Your task to perform on an android device: open app "Facebook" (install if not already installed) and enter user name: "resultants@gmail.com" and password: "earned" Image 0: 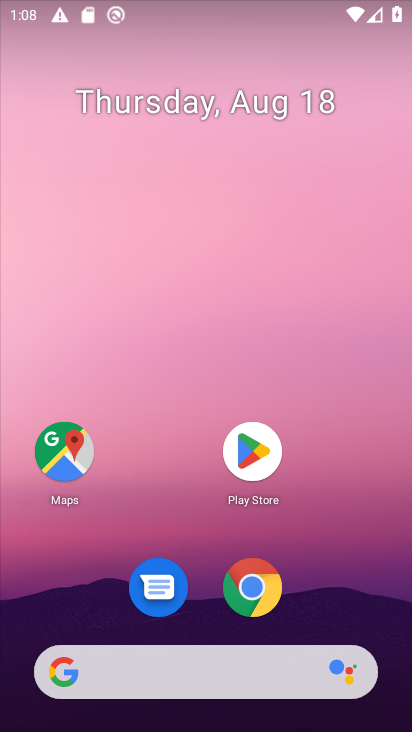
Step 0: click (257, 452)
Your task to perform on an android device: open app "Facebook" (install if not already installed) and enter user name: "resultants@gmail.com" and password: "earned" Image 1: 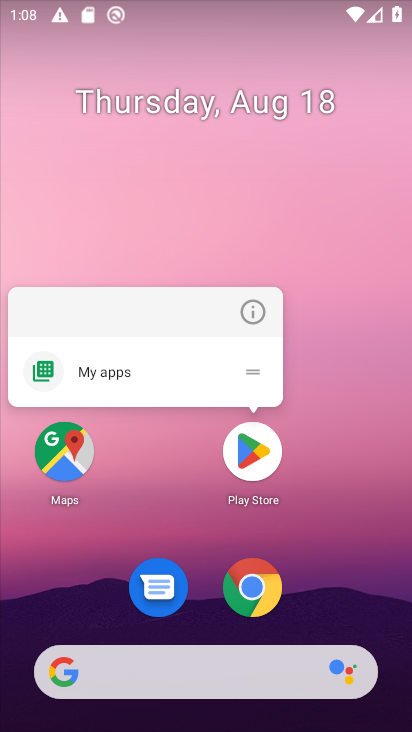
Step 1: click (257, 453)
Your task to perform on an android device: open app "Facebook" (install if not already installed) and enter user name: "resultants@gmail.com" and password: "earned" Image 2: 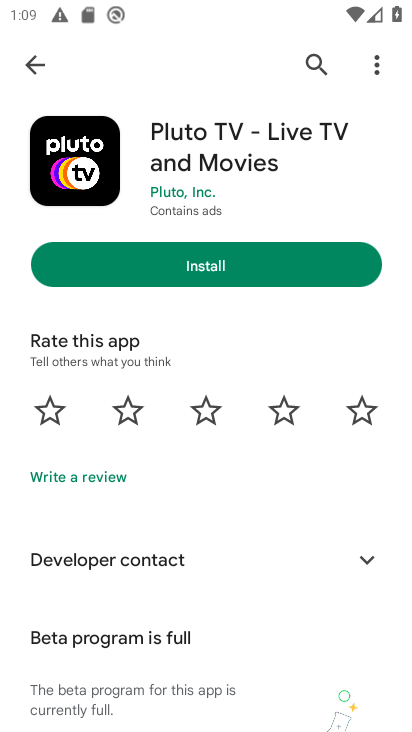
Step 2: click (309, 58)
Your task to perform on an android device: open app "Facebook" (install if not already installed) and enter user name: "resultants@gmail.com" and password: "earned" Image 3: 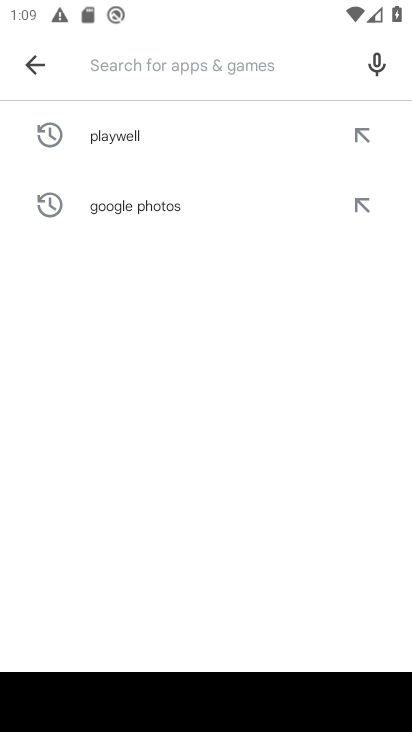
Step 3: type "Facebook"
Your task to perform on an android device: open app "Facebook" (install if not already installed) and enter user name: "resultants@gmail.com" and password: "earned" Image 4: 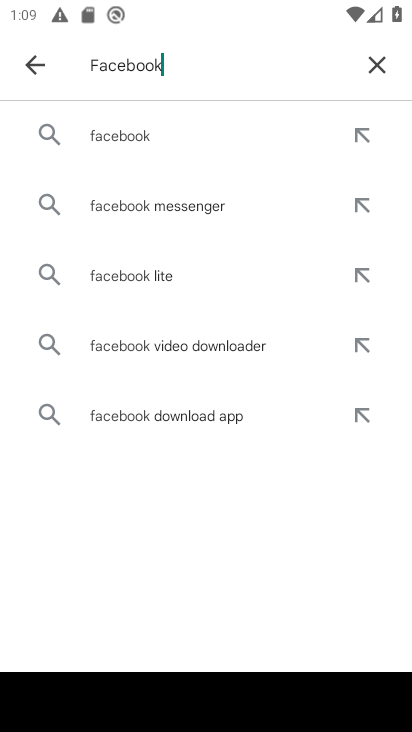
Step 4: click (104, 136)
Your task to perform on an android device: open app "Facebook" (install if not already installed) and enter user name: "resultants@gmail.com" and password: "earned" Image 5: 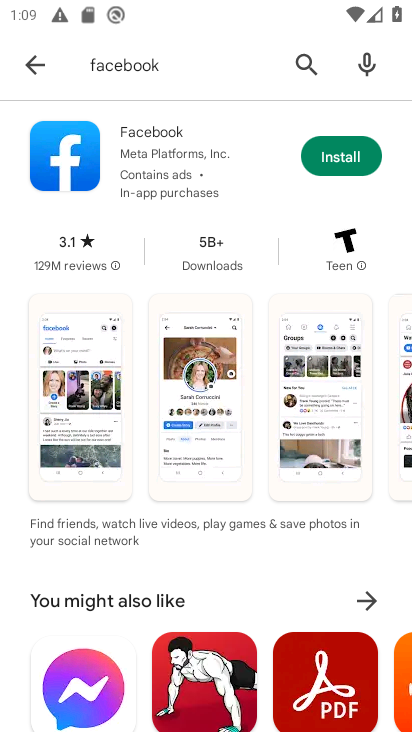
Step 5: click (334, 164)
Your task to perform on an android device: open app "Facebook" (install if not already installed) and enter user name: "resultants@gmail.com" and password: "earned" Image 6: 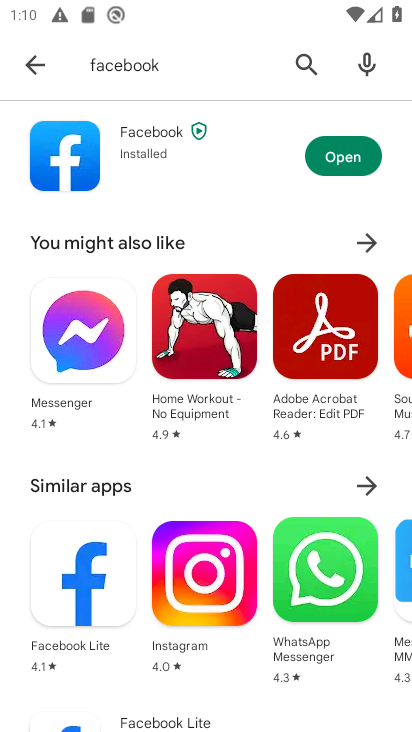
Step 6: click (334, 164)
Your task to perform on an android device: open app "Facebook" (install if not already installed) and enter user name: "resultants@gmail.com" and password: "earned" Image 7: 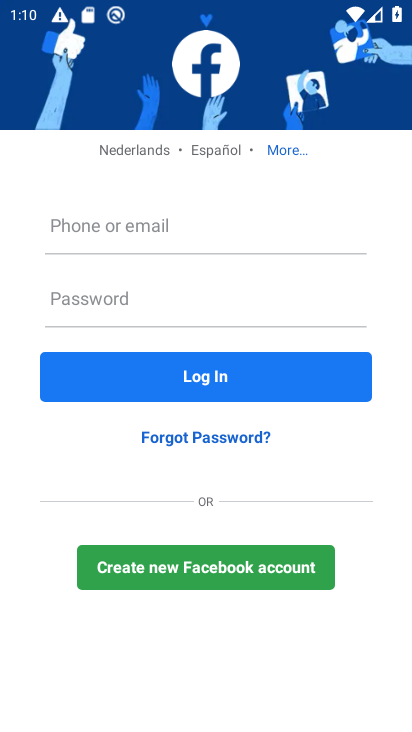
Step 7: click (130, 226)
Your task to perform on an android device: open app "Facebook" (install if not already installed) and enter user name: "resultants@gmail.com" and password: "earned" Image 8: 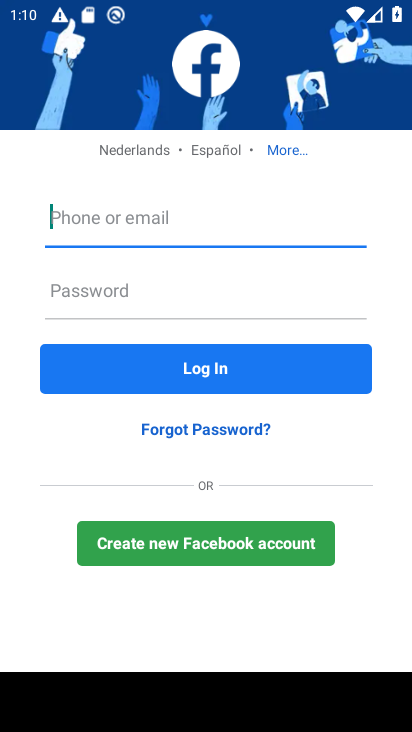
Step 8: type "resultants@gmail.com"
Your task to perform on an android device: open app "Facebook" (install if not already installed) and enter user name: "resultants@gmail.com" and password: "earned" Image 9: 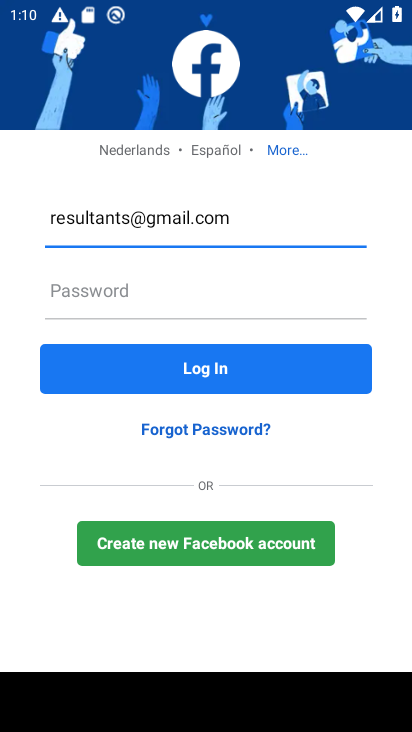
Step 9: click (82, 295)
Your task to perform on an android device: open app "Facebook" (install if not already installed) and enter user name: "resultants@gmail.com" and password: "earned" Image 10: 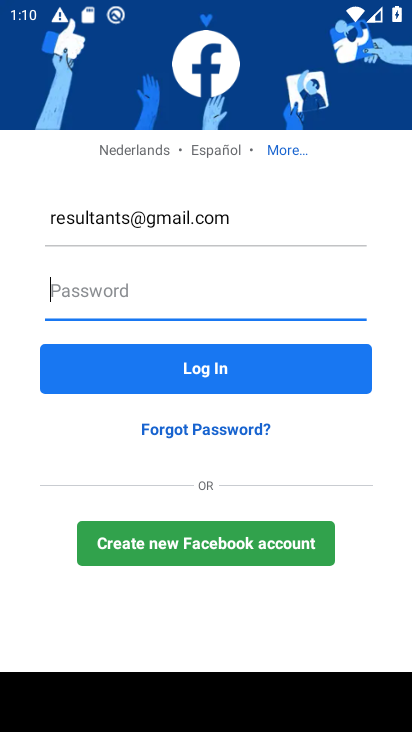
Step 10: type "earned"
Your task to perform on an android device: open app "Facebook" (install if not already installed) and enter user name: "resultants@gmail.com" and password: "earned" Image 11: 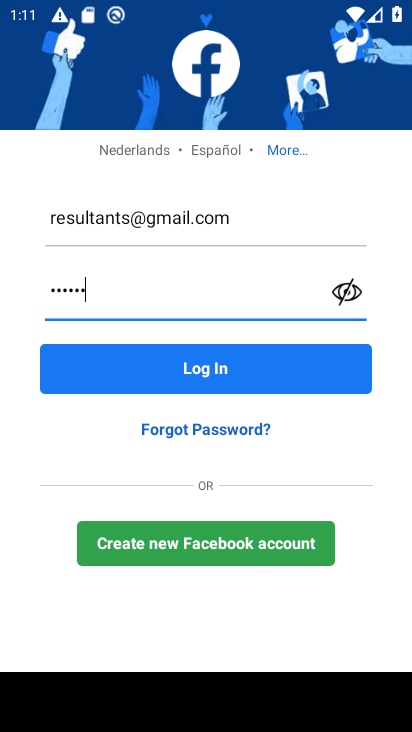
Step 11: task complete